Your task to perform on an android device: Go to calendar. Show me events next week Image 0: 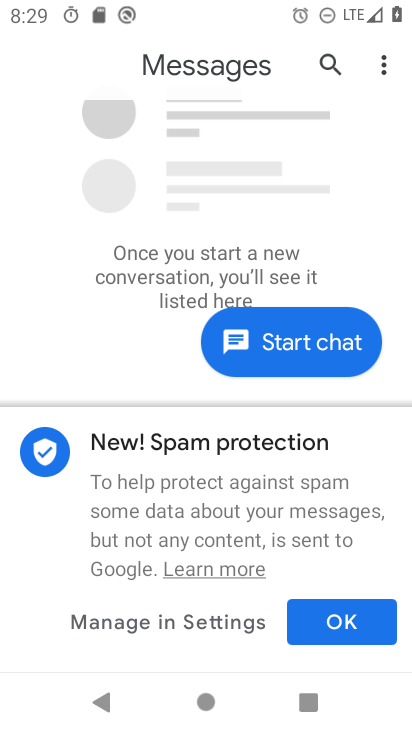
Step 0: press home button
Your task to perform on an android device: Go to calendar. Show me events next week Image 1: 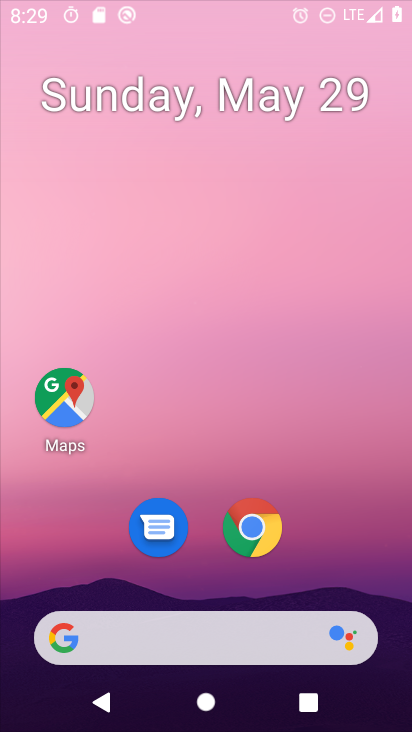
Step 1: drag from (406, 640) to (285, 7)
Your task to perform on an android device: Go to calendar. Show me events next week Image 2: 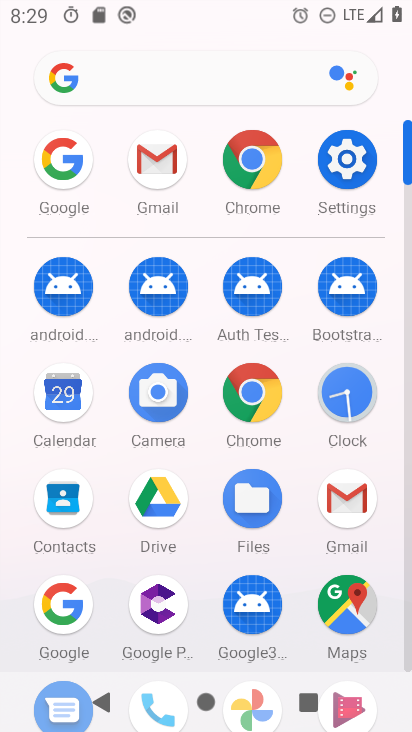
Step 2: click (54, 415)
Your task to perform on an android device: Go to calendar. Show me events next week Image 3: 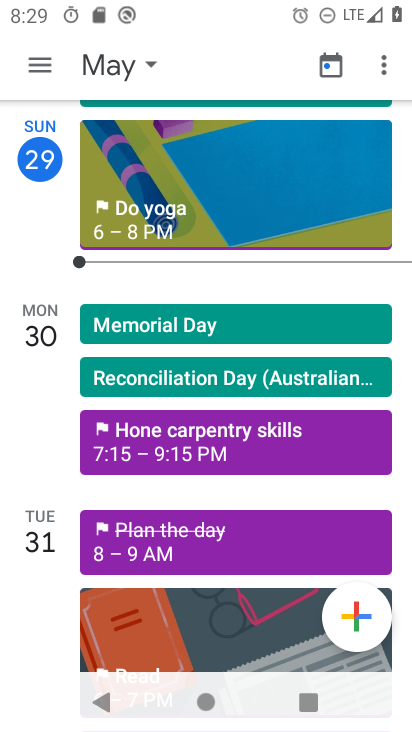
Step 3: click (107, 58)
Your task to perform on an android device: Go to calendar. Show me events next week Image 4: 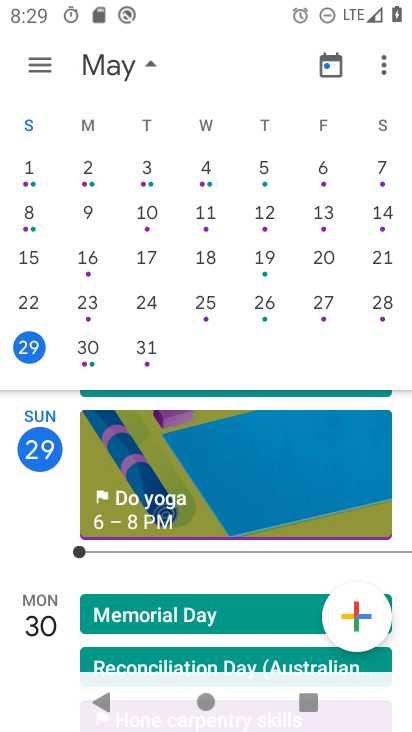
Step 4: drag from (392, 246) to (172, 220)
Your task to perform on an android device: Go to calendar. Show me events next week Image 5: 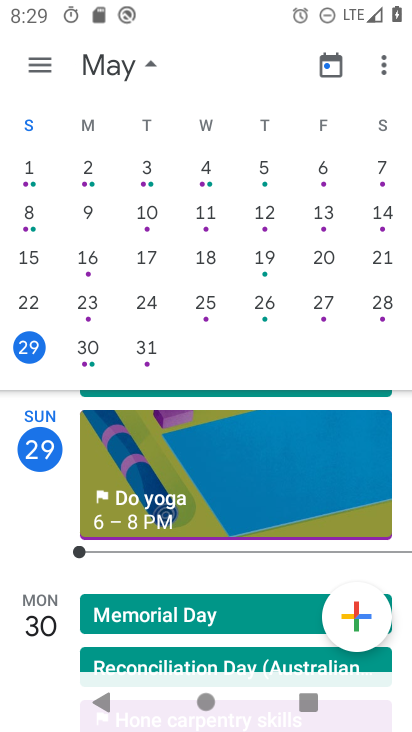
Step 5: drag from (283, 199) to (45, 216)
Your task to perform on an android device: Go to calendar. Show me events next week Image 6: 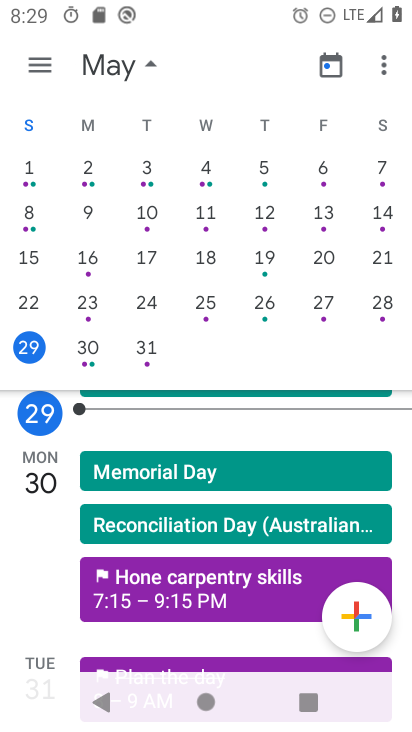
Step 6: drag from (245, 240) to (5, 193)
Your task to perform on an android device: Go to calendar. Show me events next week Image 7: 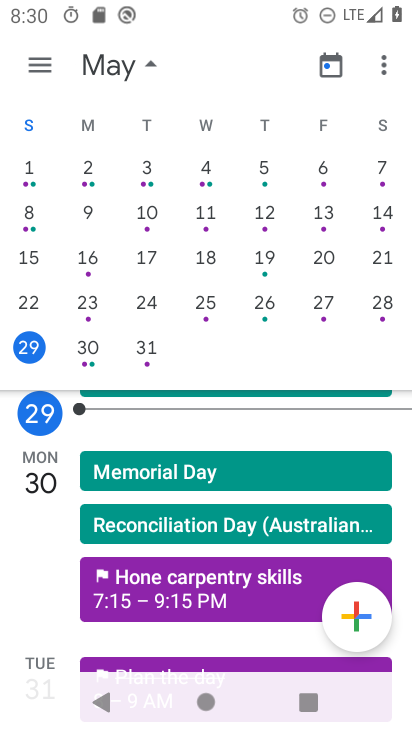
Step 7: drag from (380, 228) to (16, 238)
Your task to perform on an android device: Go to calendar. Show me events next week Image 8: 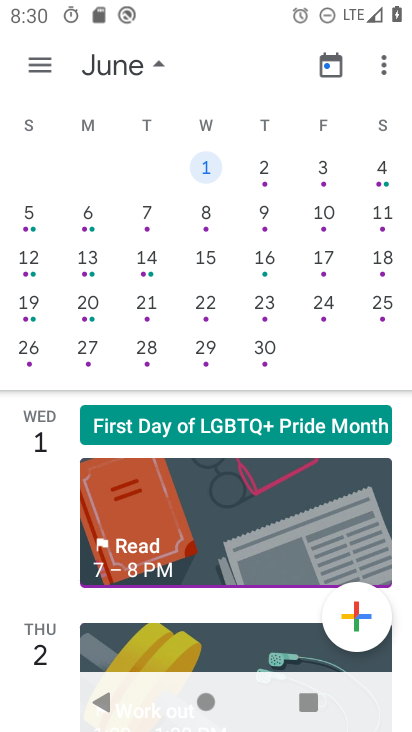
Step 8: click (20, 209)
Your task to perform on an android device: Go to calendar. Show me events next week Image 9: 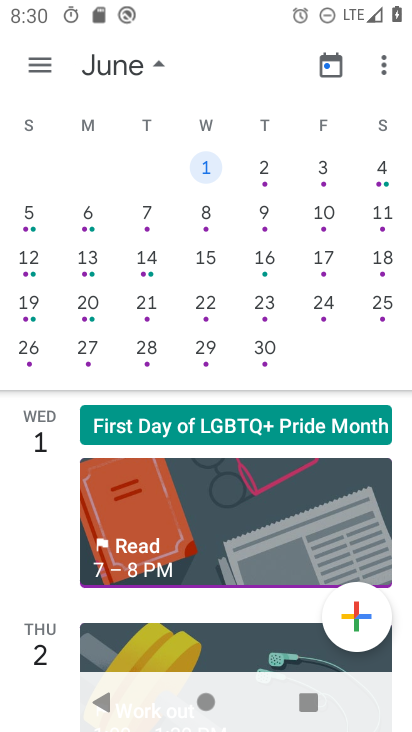
Step 9: click (87, 204)
Your task to perform on an android device: Go to calendar. Show me events next week Image 10: 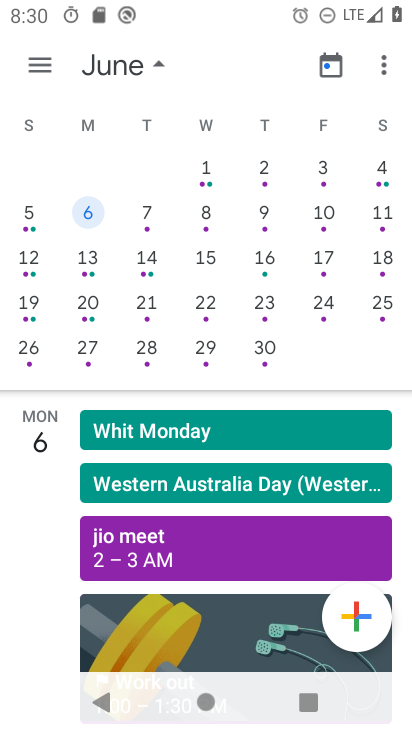
Step 10: task complete